Your task to perform on an android device: Search for Mexican restaurants on Maps Image 0: 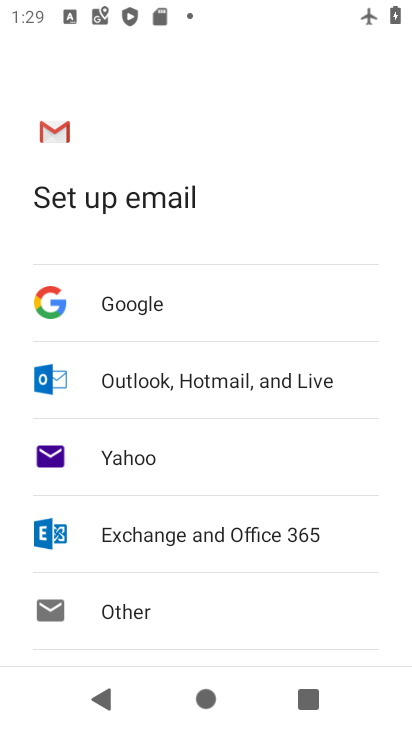
Step 0: press home button
Your task to perform on an android device: Search for Mexican restaurants on Maps Image 1: 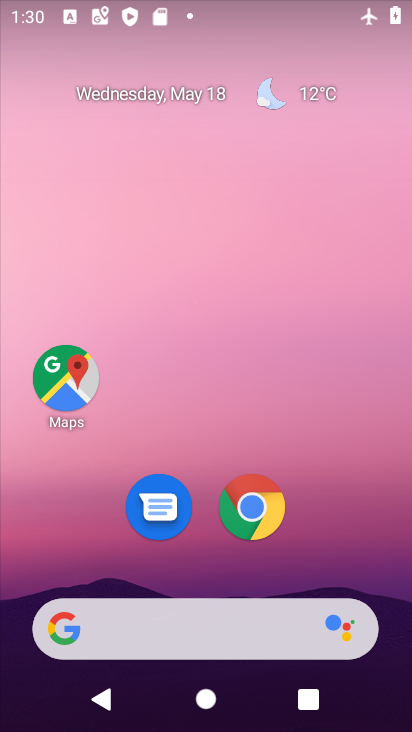
Step 1: click (68, 382)
Your task to perform on an android device: Search for Mexican restaurants on Maps Image 2: 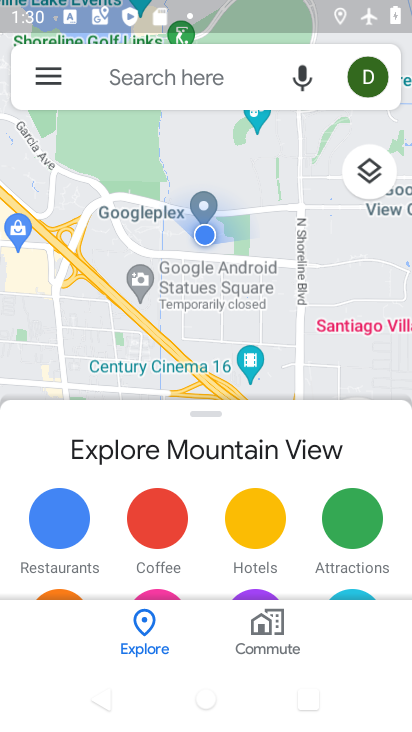
Step 2: click (142, 80)
Your task to perform on an android device: Search for Mexican restaurants on Maps Image 3: 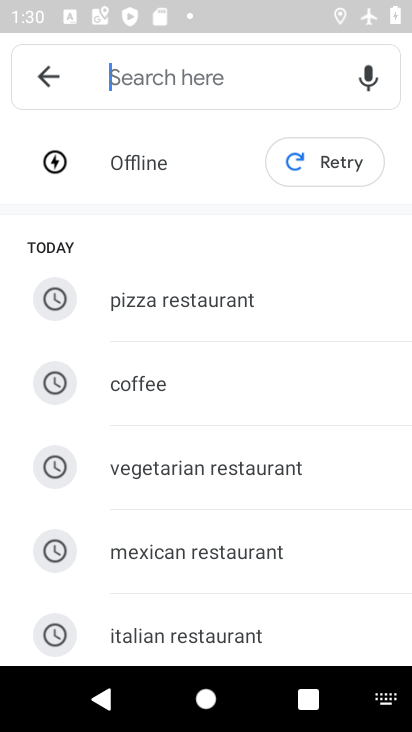
Step 3: type "mexican restaurants"
Your task to perform on an android device: Search for Mexican restaurants on Maps Image 4: 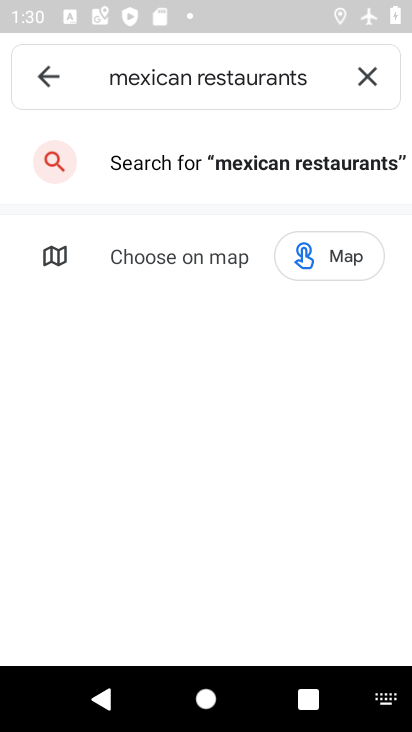
Step 4: click (273, 159)
Your task to perform on an android device: Search for Mexican restaurants on Maps Image 5: 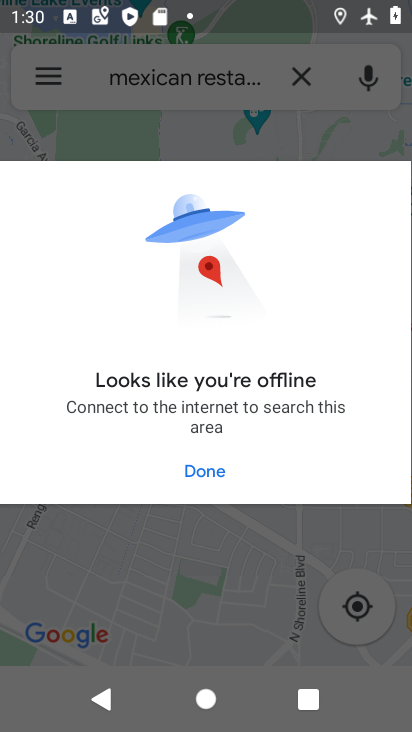
Step 5: task complete